Your task to perform on an android device: When is my next appointment? Image 0: 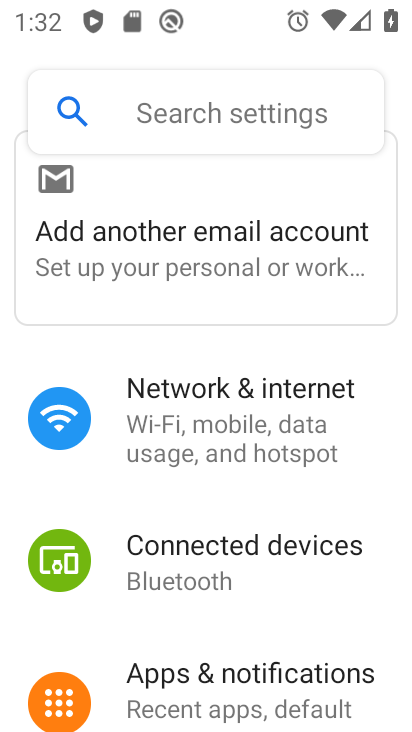
Step 0: drag from (281, 625) to (273, 417)
Your task to perform on an android device: When is my next appointment? Image 1: 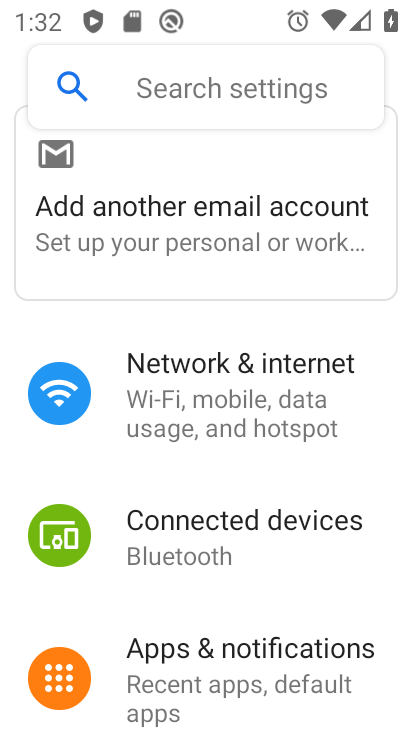
Step 1: drag from (291, 691) to (274, 491)
Your task to perform on an android device: When is my next appointment? Image 2: 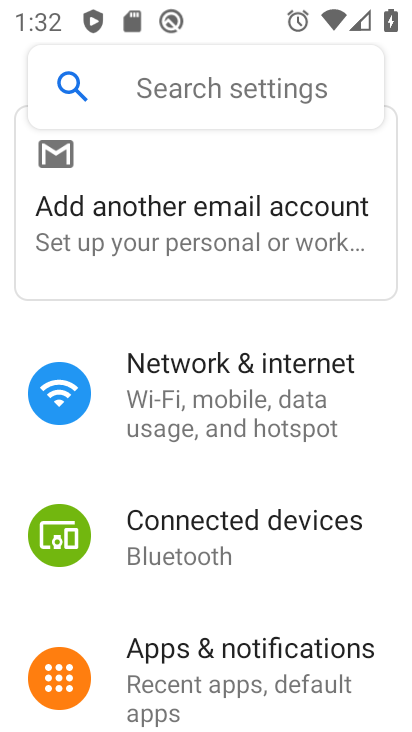
Step 2: press home button
Your task to perform on an android device: When is my next appointment? Image 3: 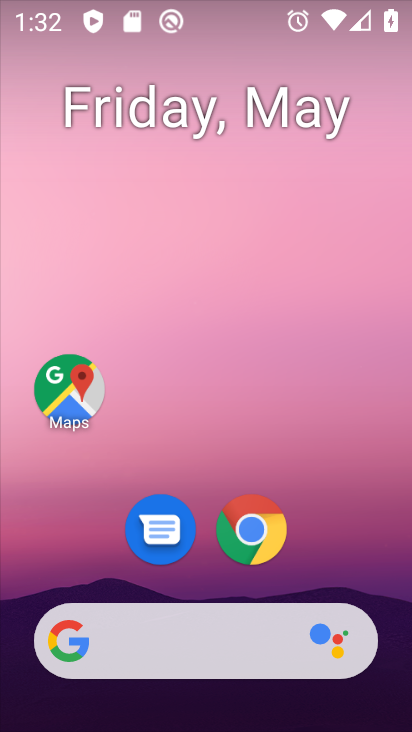
Step 3: drag from (405, 524) to (364, 134)
Your task to perform on an android device: When is my next appointment? Image 4: 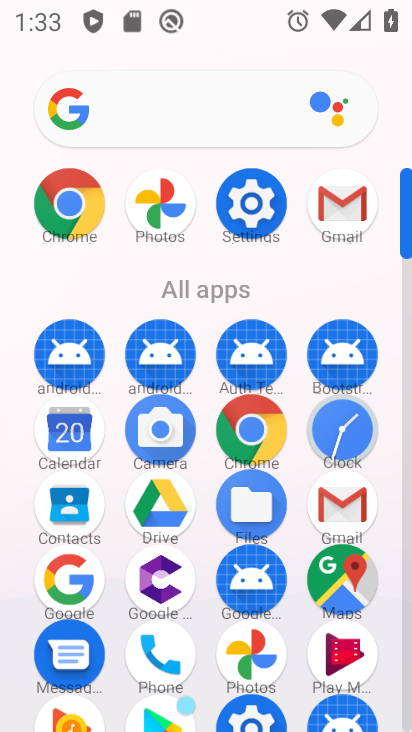
Step 4: click (59, 436)
Your task to perform on an android device: When is my next appointment? Image 5: 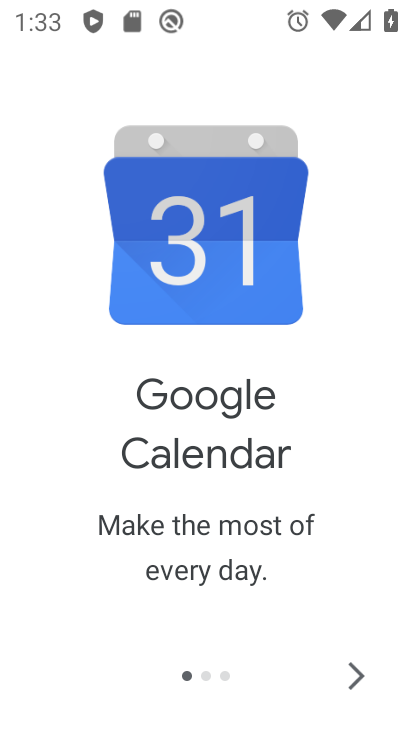
Step 5: click (362, 673)
Your task to perform on an android device: When is my next appointment? Image 6: 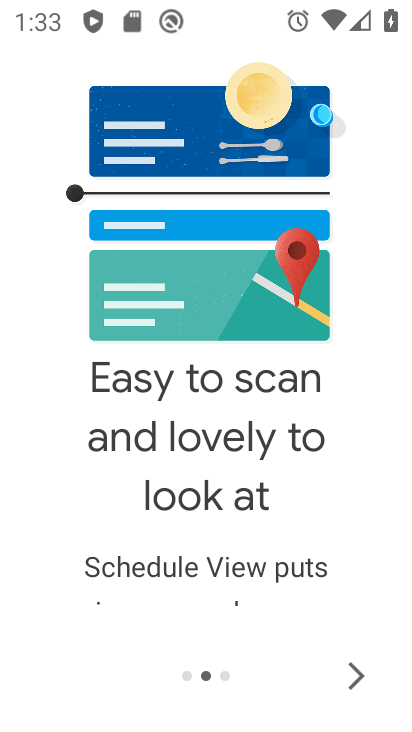
Step 6: click (360, 673)
Your task to perform on an android device: When is my next appointment? Image 7: 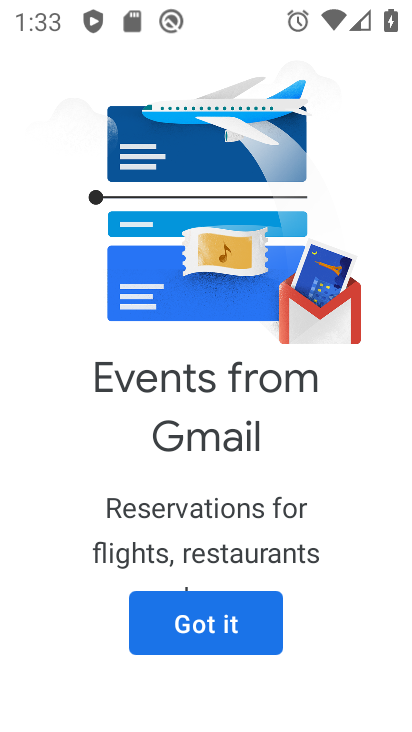
Step 7: click (174, 634)
Your task to perform on an android device: When is my next appointment? Image 8: 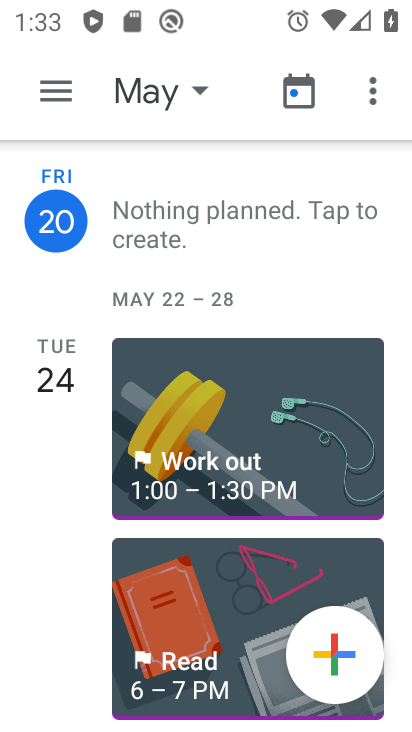
Step 8: click (53, 89)
Your task to perform on an android device: When is my next appointment? Image 9: 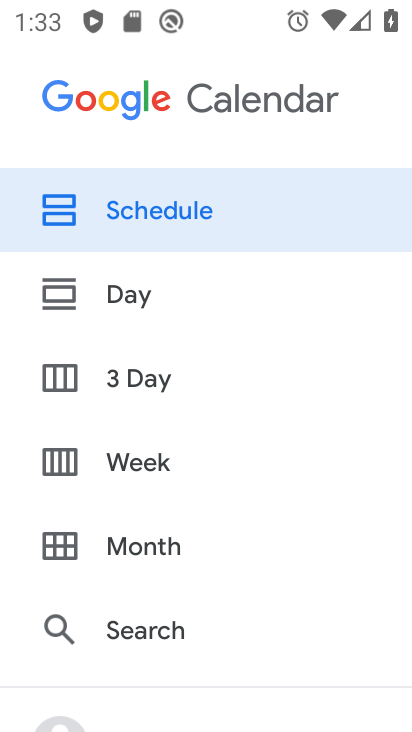
Step 9: drag from (318, 636) to (349, 337)
Your task to perform on an android device: When is my next appointment? Image 10: 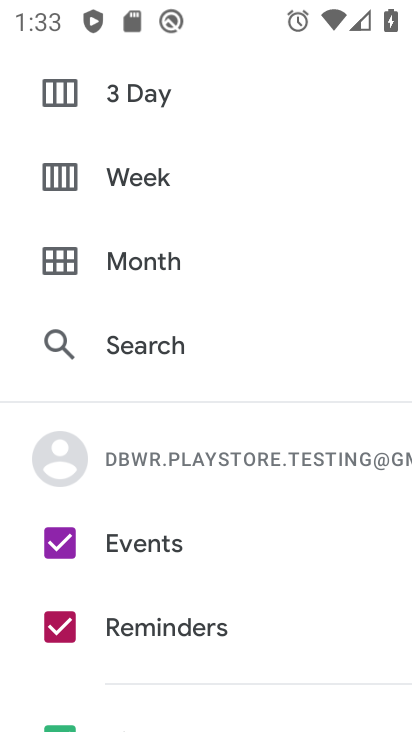
Step 10: drag from (232, 697) to (237, 456)
Your task to perform on an android device: When is my next appointment? Image 11: 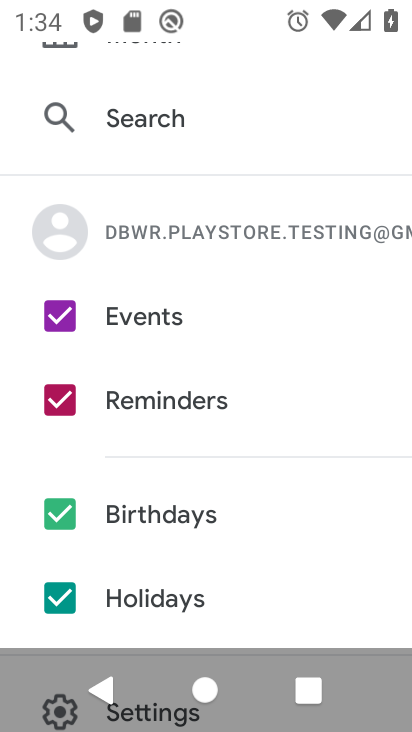
Step 11: click (49, 599)
Your task to perform on an android device: When is my next appointment? Image 12: 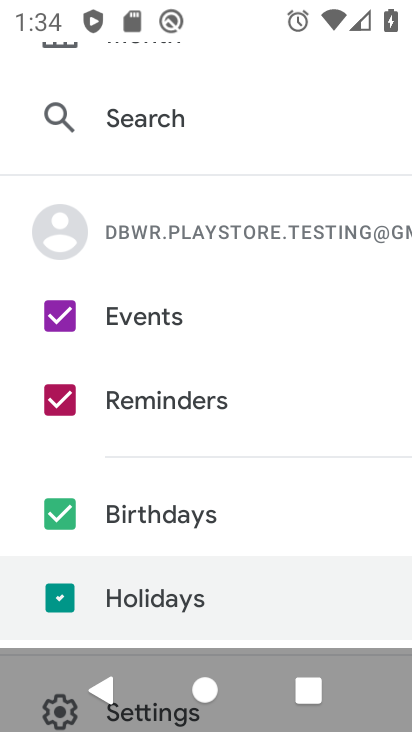
Step 12: click (54, 492)
Your task to perform on an android device: When is my next appointment? Image 13: 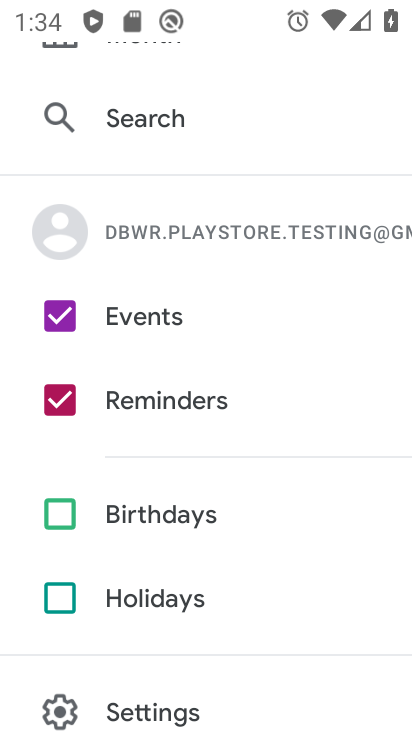
Step 13: click (59, 388)
Your task to perform on an android device: When is my next appointment? Image 14: 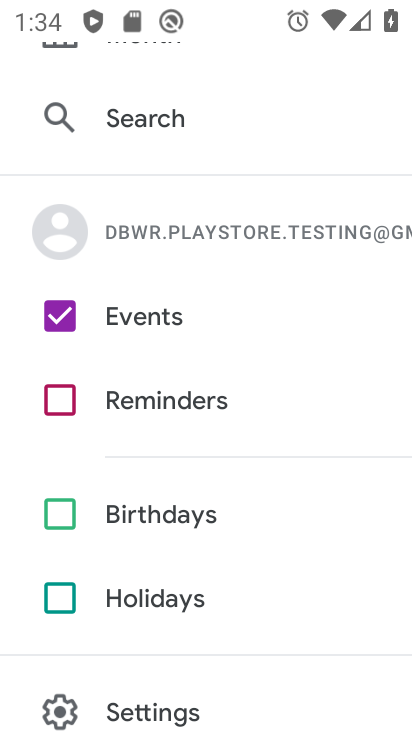
Step 14: drag from (339, 191) to (348, 541)
Your task to perform on an android device: When is my next appointment? Image 15: 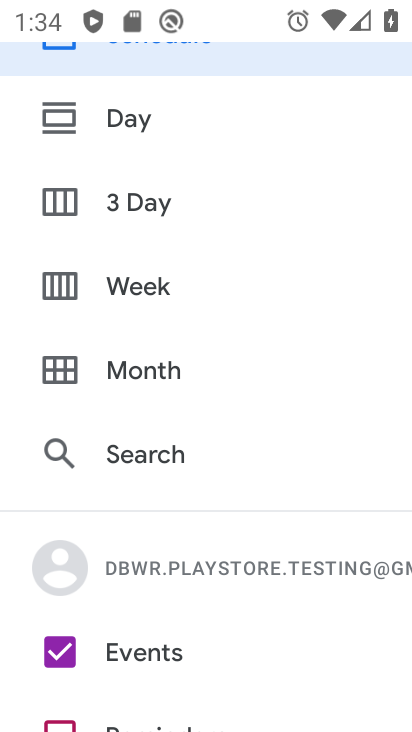
Step 15: drag from (313, 128) to (336, 441)
Your task to perform on an android device: When is my next appointment? Image 16: 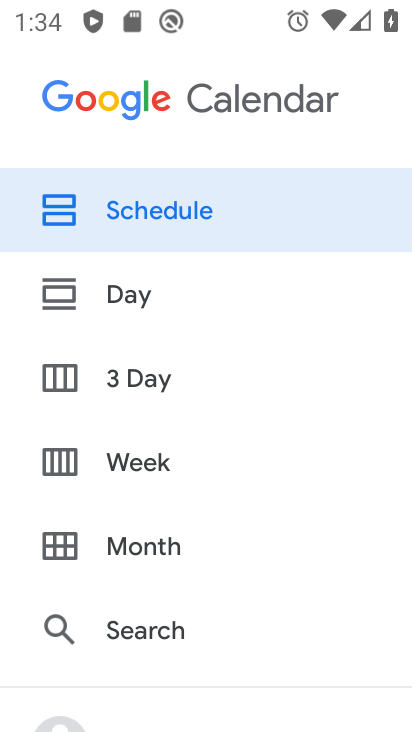
Step 16: click (131, 189)
Your task to perform on an android device: When is my next appointment? Image 17: 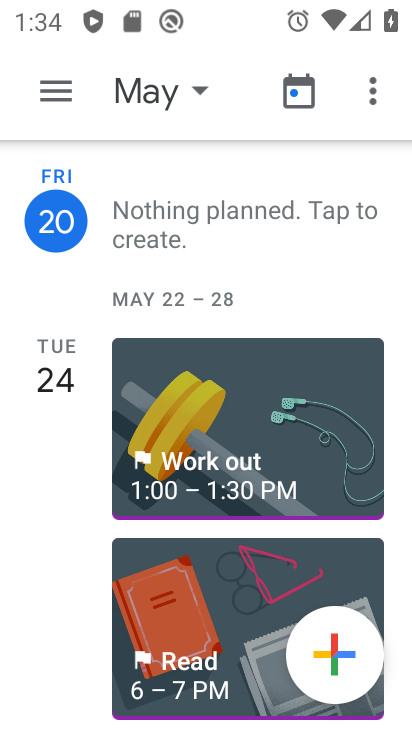
Step 17: task complete